Your task to perform on an android device: see tabs open on other devices in the chrome app Image 0: 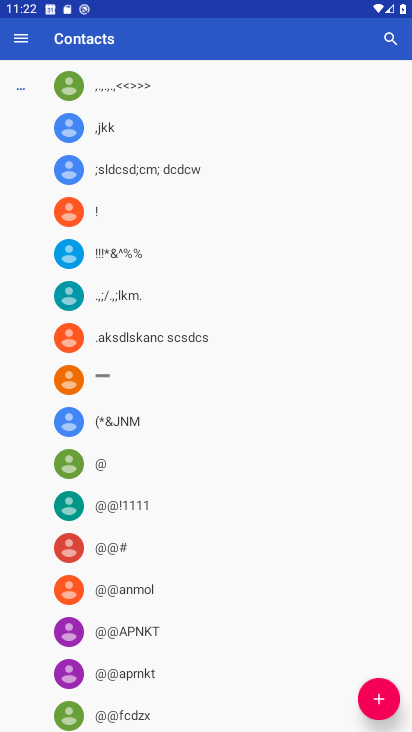
Step 0: press home button
Your task to perform on an android device: see tabs open on other devices in the chrome app Image 1: 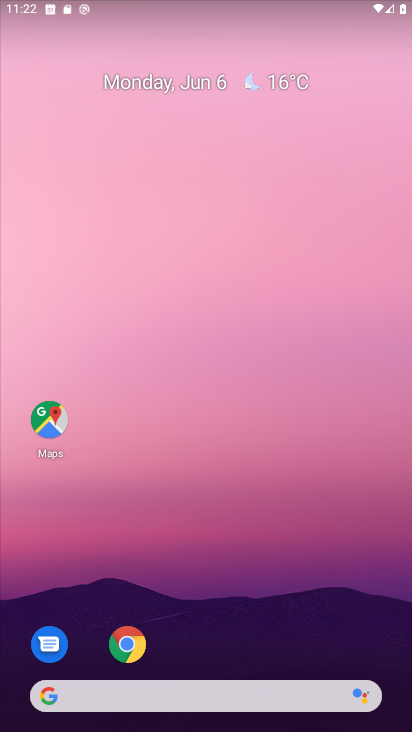
Step 1: click (133, 648)
Your task to perform on an android device: see tabs open on other devices in the chrome app Image 2: 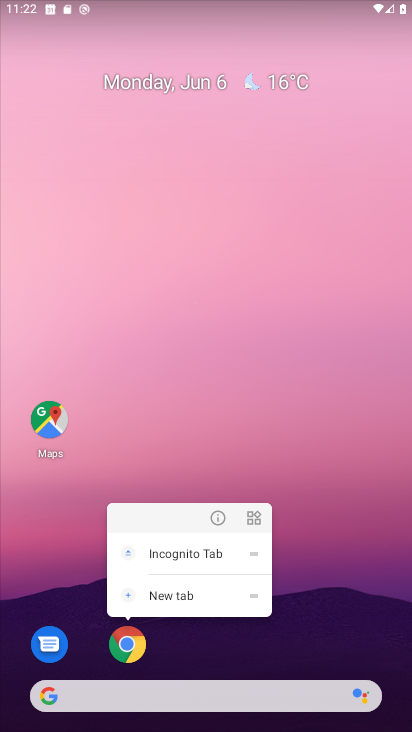
Step 2: click (130, 648)
Your task to perform on an android device: see tabs open on other devices in the chrome app Image 3: 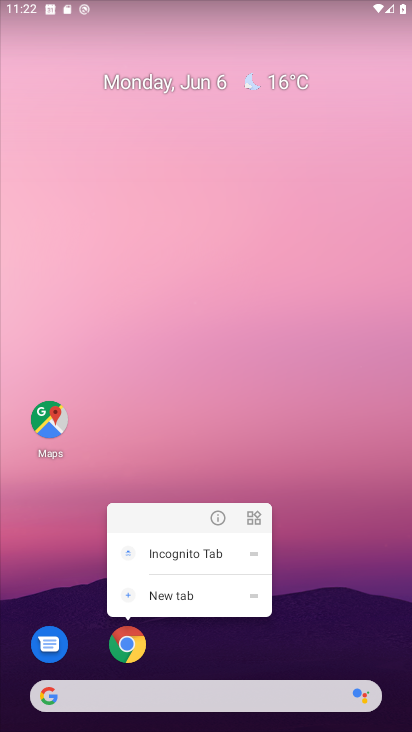
Step 3: click (118, 654)
Your task to perform on an android device: see tabs open on other devices in the chrome app Image 4: 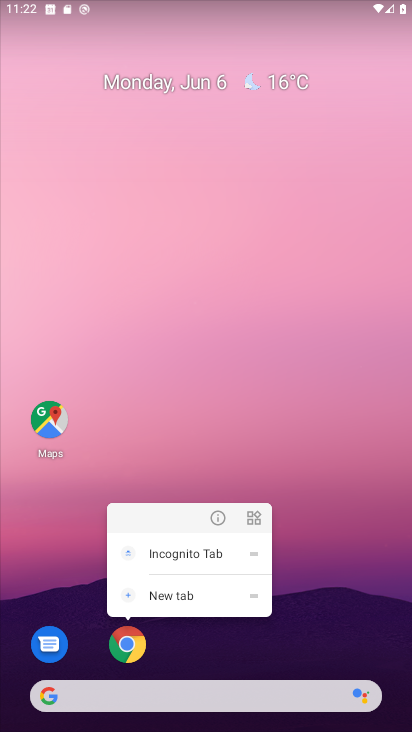
Step 4: click (129, 654)
Your task to perform on an android device: see tabs open on other devices in the chrome app Image 5: 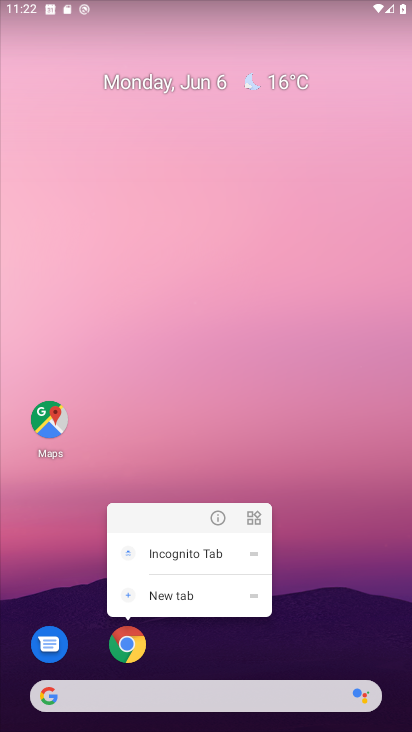
Step 5: click (132, 645)
Your task to perform on an android device: see tabs open on other devices in the chrome app Image 6: 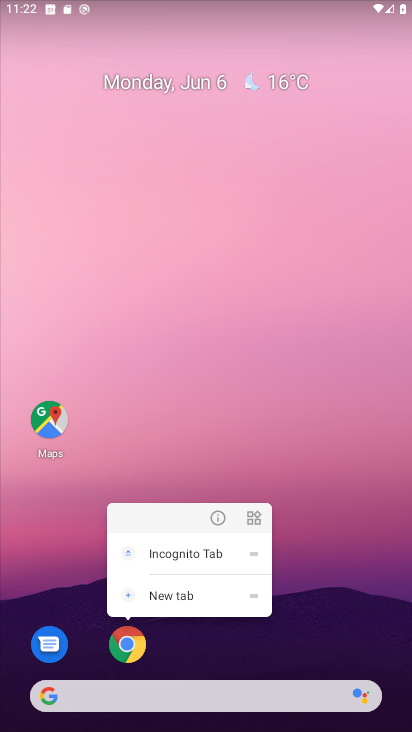
Step 6: click (127, 635)
Your task to perform on an android device: see tabs open on other devices in the chrome app Image 7: 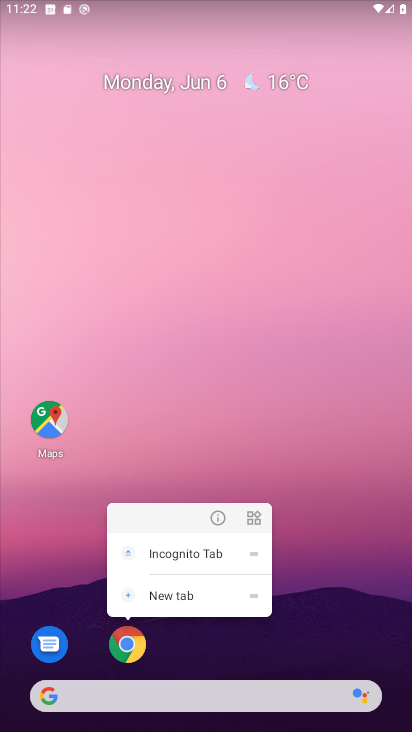
Step 7: click (141, 645)
Your task to perform on an android device: see tabs open on other devices in the chrome app Image 8: 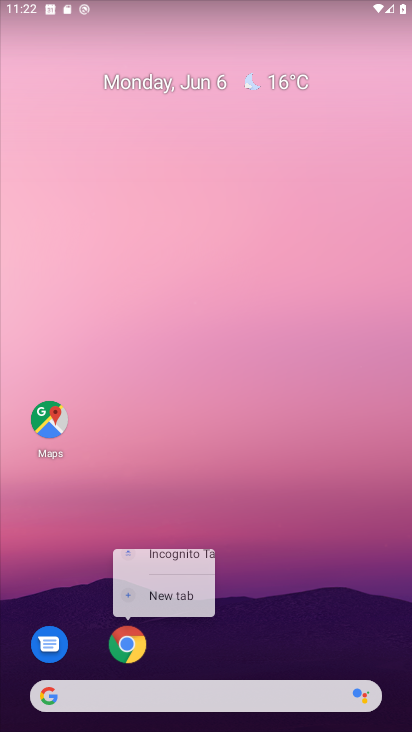
Step 8: click (135, 651)
Your task to perform on an android device: see tabs open on other devices in the chrome app Image 9: 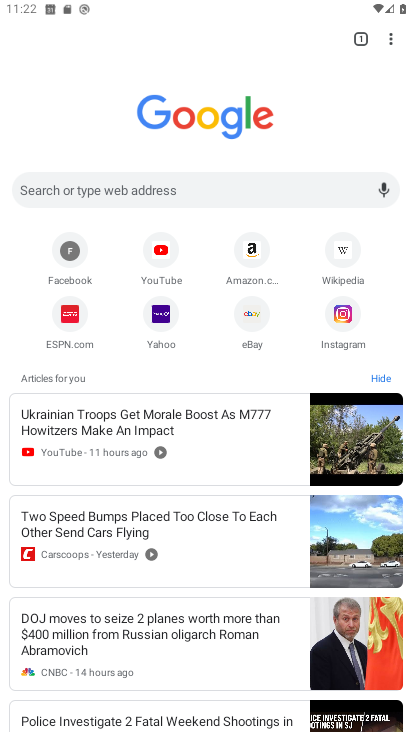
Step 9: task complete